Your task to perform on an android device: Open CNN.com Image 0: 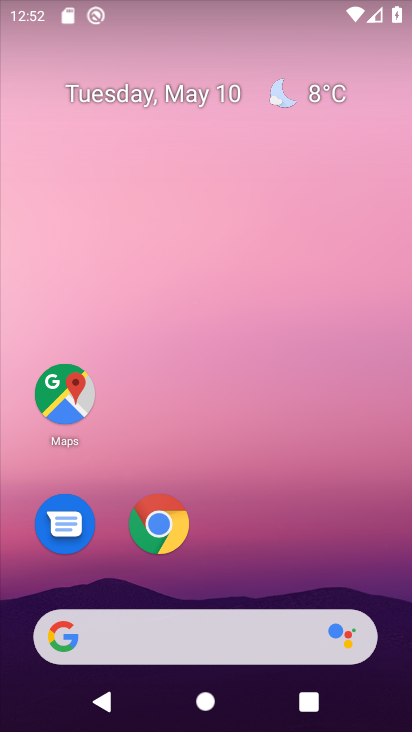
Step 0: click (275, 634)
Your task to perform on an android device: Open CNN.com Image 1: 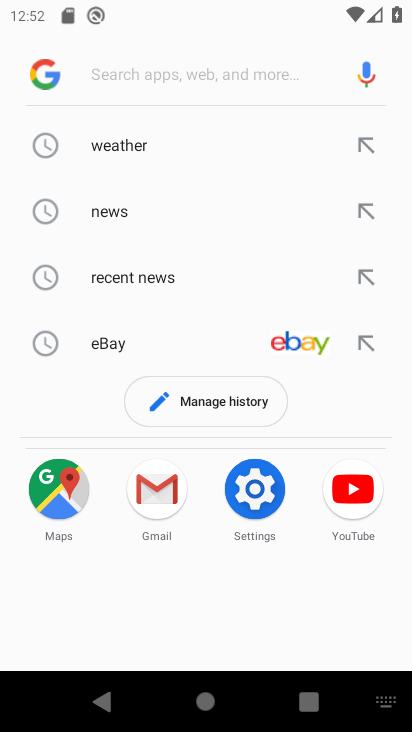
Step 1: type "cnn.com"
Your task to perform on an android device: Open CNN.com Image 2: 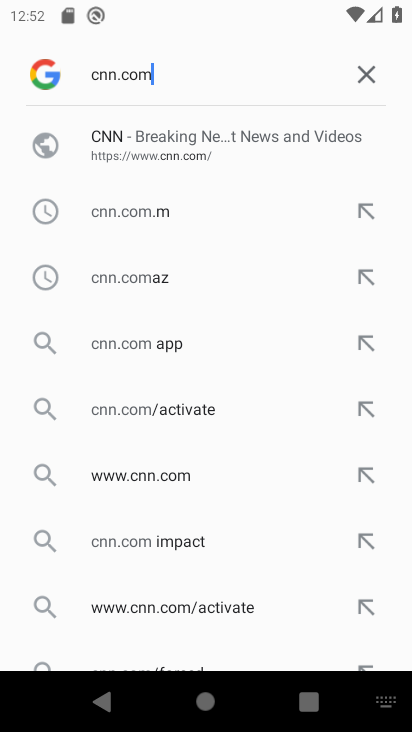
Step 2: click (93, 137)
Your task to perform on an android device: Open CNN.com Image 3: 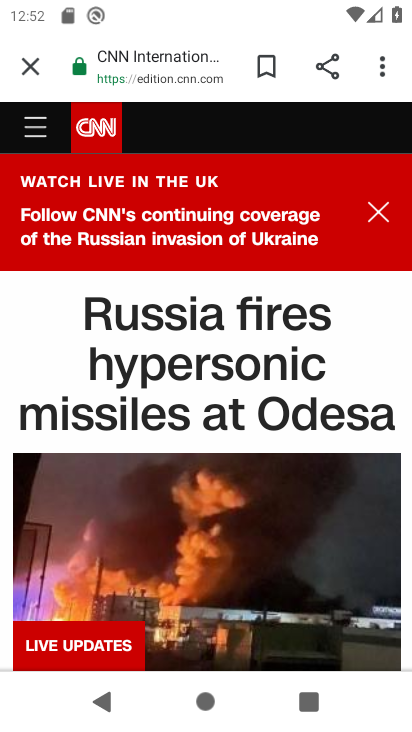
Step 3: task complete